Your task to perform on an android device: Go to location settings Image 0: 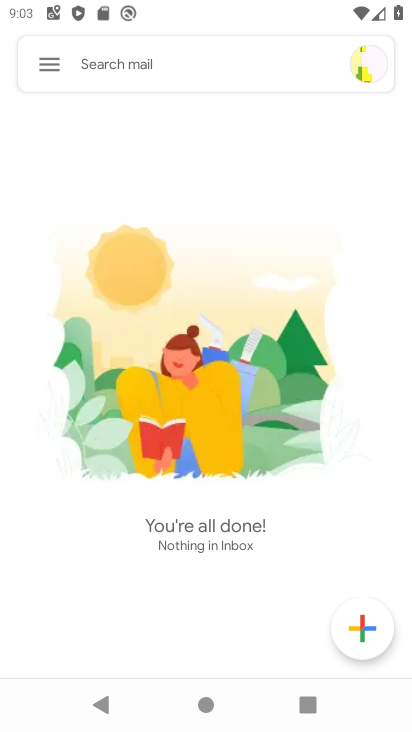
Step 0: press home button
Your task to perform on an android device: Go to location settings Image 1: 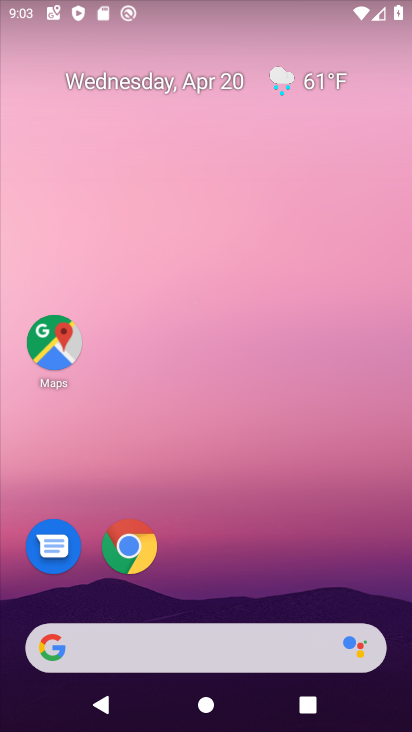
Step 1: drag from (209, 679) to (220, 3)
Your task to perform on an android device: Go to location settings Image 2: 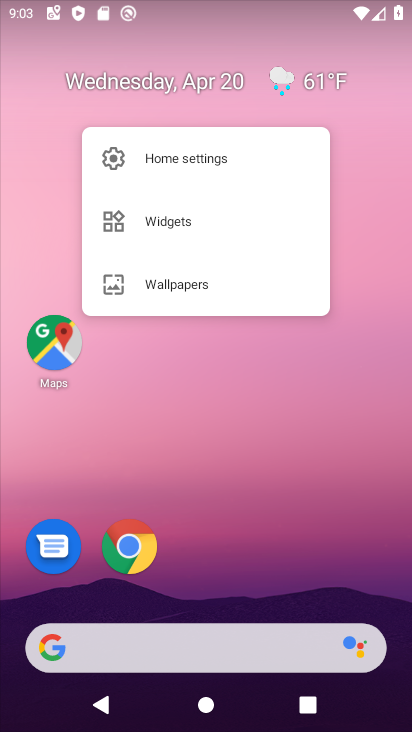
Step 2: click (214, 412)
Your task to perform on an android device: Go to location settings Image 3: 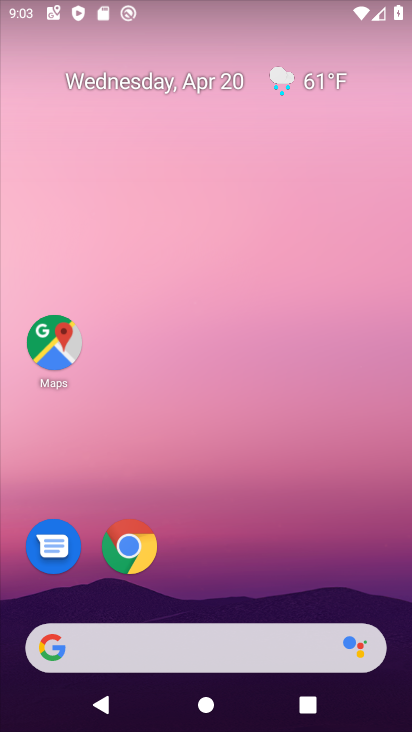
Step 3: drag from (232, 729) to (232, 68)
Your task to perform on an android device: Go to location settings Image 4: 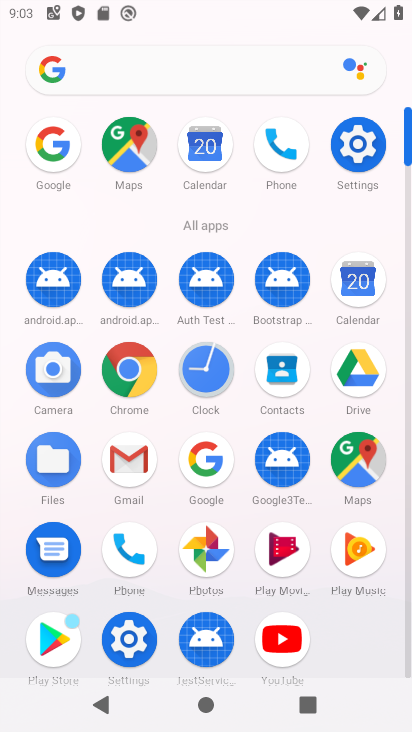
Step 4: click (363, 138)
Your task to perform on an android device: Go to location settings Image 5: 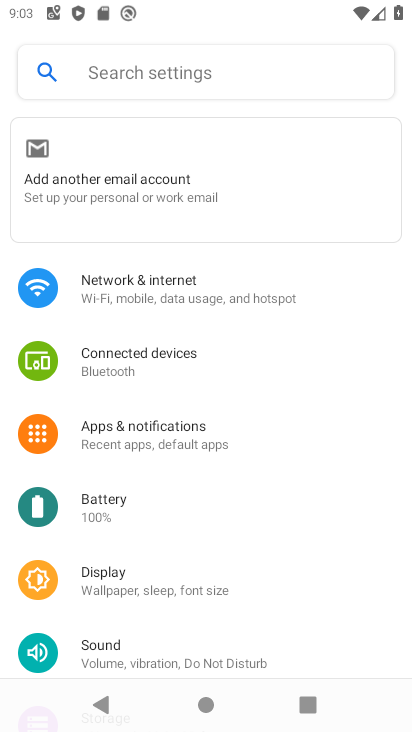
Step 5: drag from (145, 627) to (158, 191)
Your task to perform on an android device: Go to location settings Image 6: 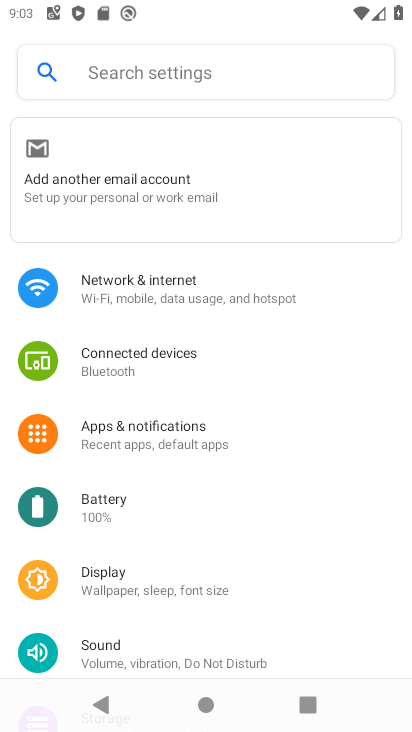
Step 6: drag from (207, 630) to (188, 213)
Your task to perform on an android device: Go to location settings Image 7: 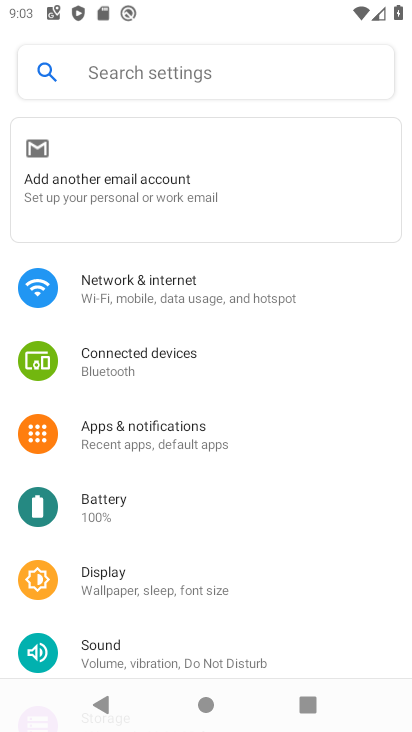
Step 7: drag from (142, 635) to (144, 166)
Your task to perform on an android device: Go to location settings Image 8: 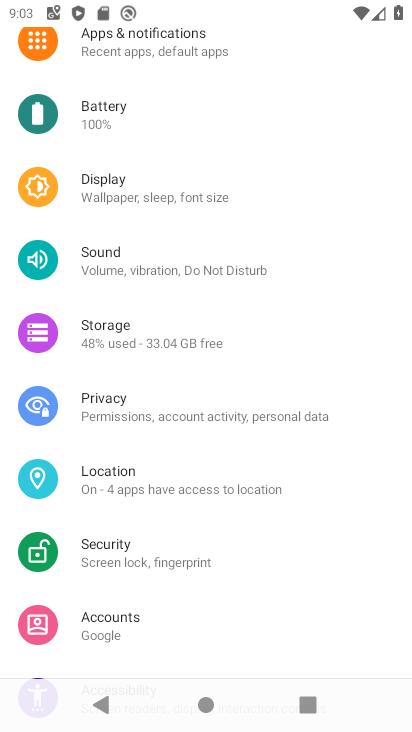
Step 8: click (133, 487)
Your task to perform on an android device: Go to location settings Image 9: 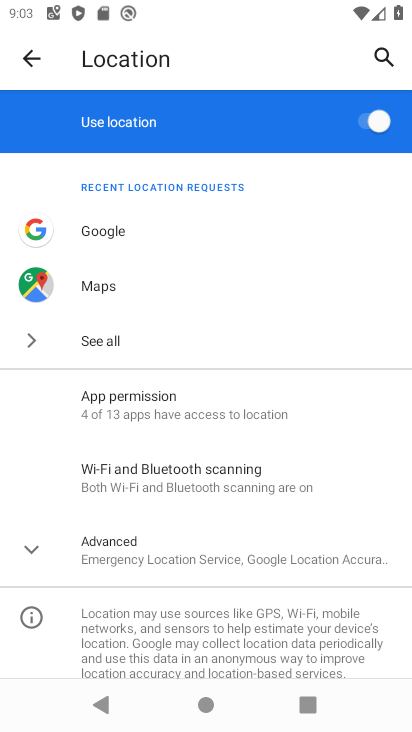
Step 9: task complete